Your task to perform on an android device: What's the news in Trinidad and Tobago? Image 0: 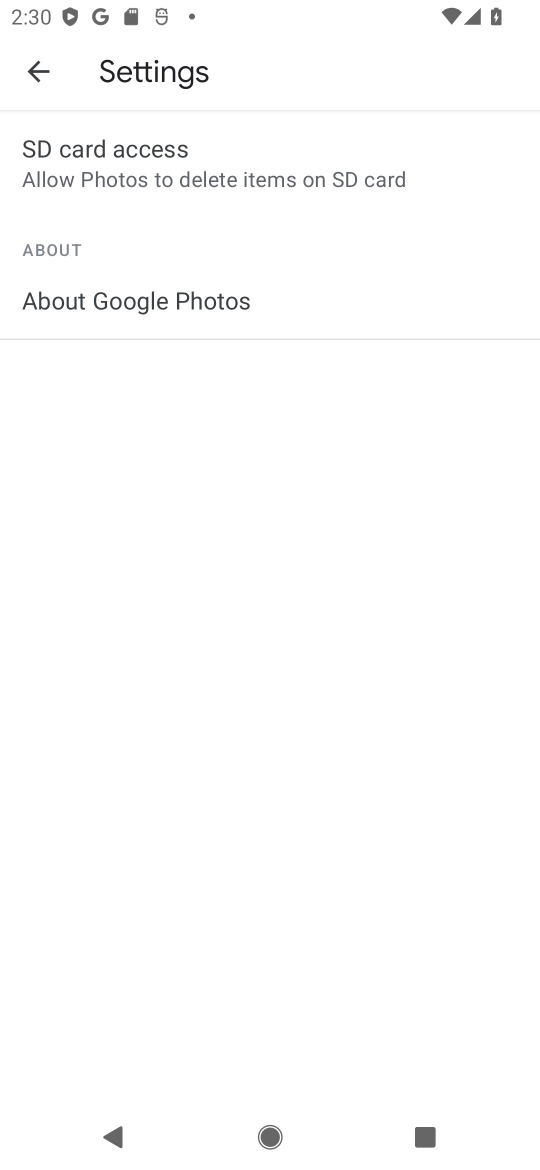
Step 0: press home button
Your task to perform on an android device: What's the news in Trinidad and Tobago? Image 1: 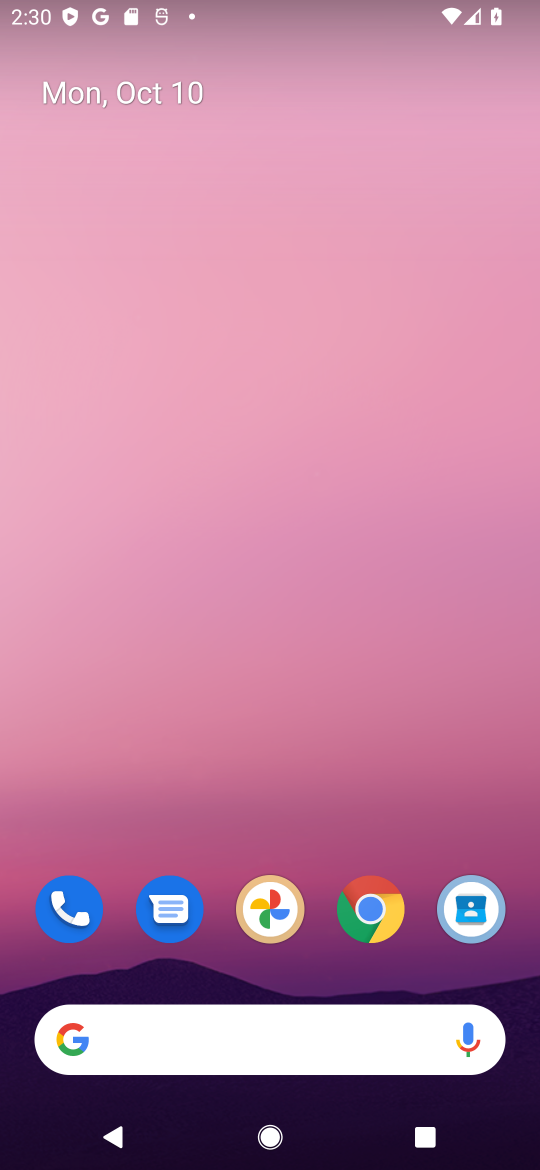
Step 1: click (367, 917)
Your task to perform on an android device: What's the news in Trinidad and Tobago? Image 2: 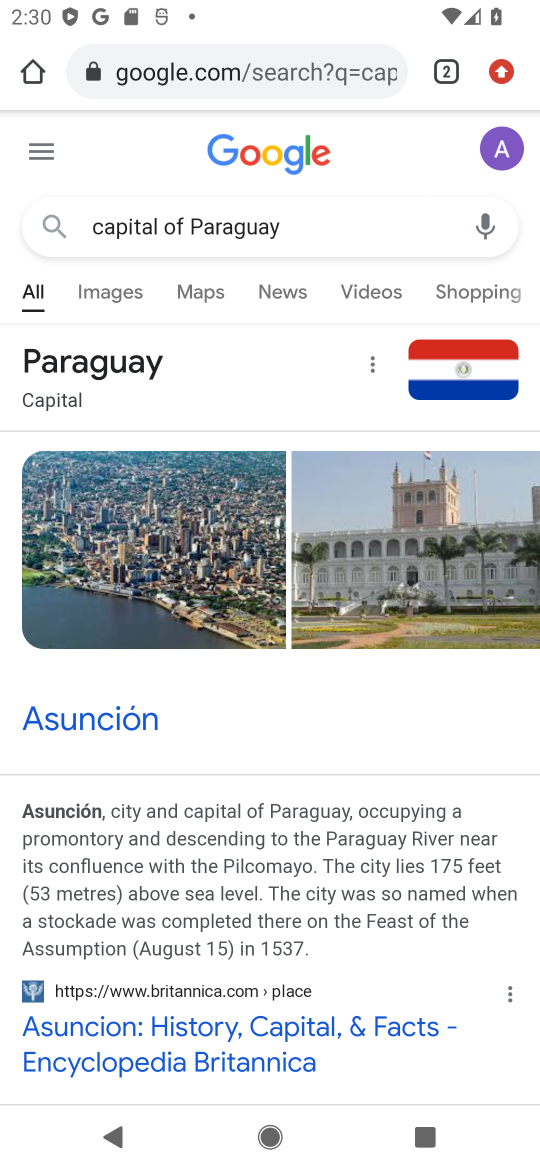
Step 2: click (295, 217)
Your task to perform on an android device: What's the news in Trinidad and Tobago? Image 3: 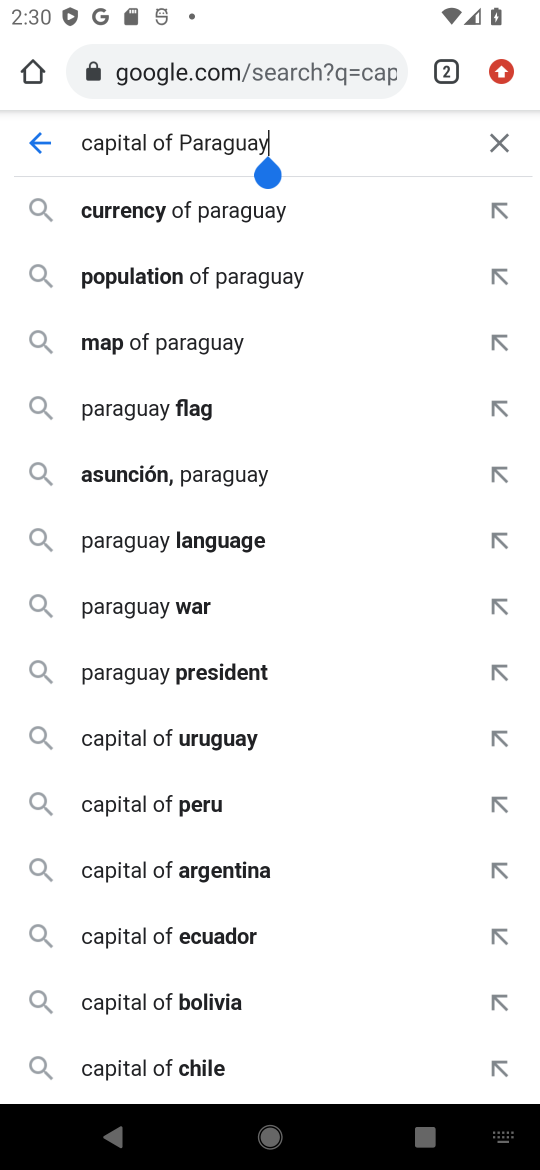
Step 3: click (495, 140)
Your task to perform on an android device: What's the news in Trinidad and Tobago? Image 4: 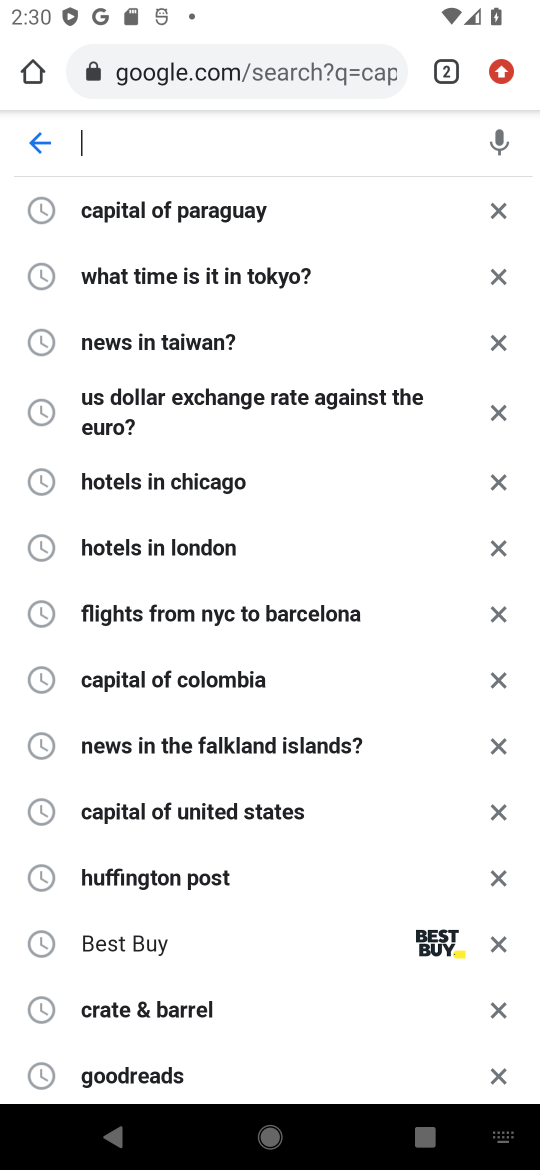
Step 4: type "What's the news in Trinidad and Tobago?"
Your task to perform on an android device: What's the news in Trinidad and Tobago? Image 5: 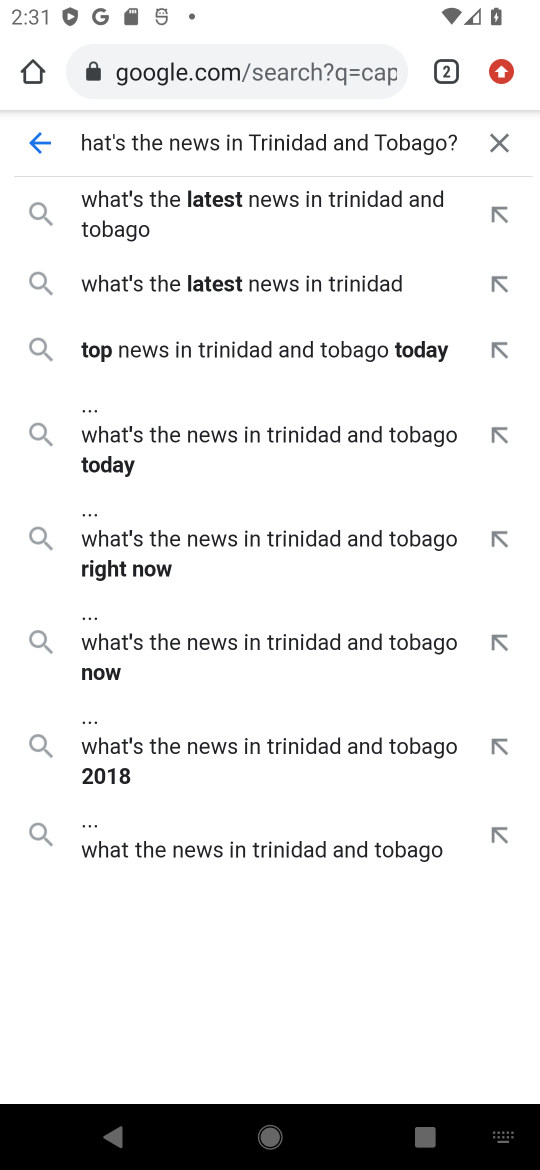
Step 5: click (202, 203)
Your task to perform on an android device: What's the news in Trinidad and Tobago? Image 6: 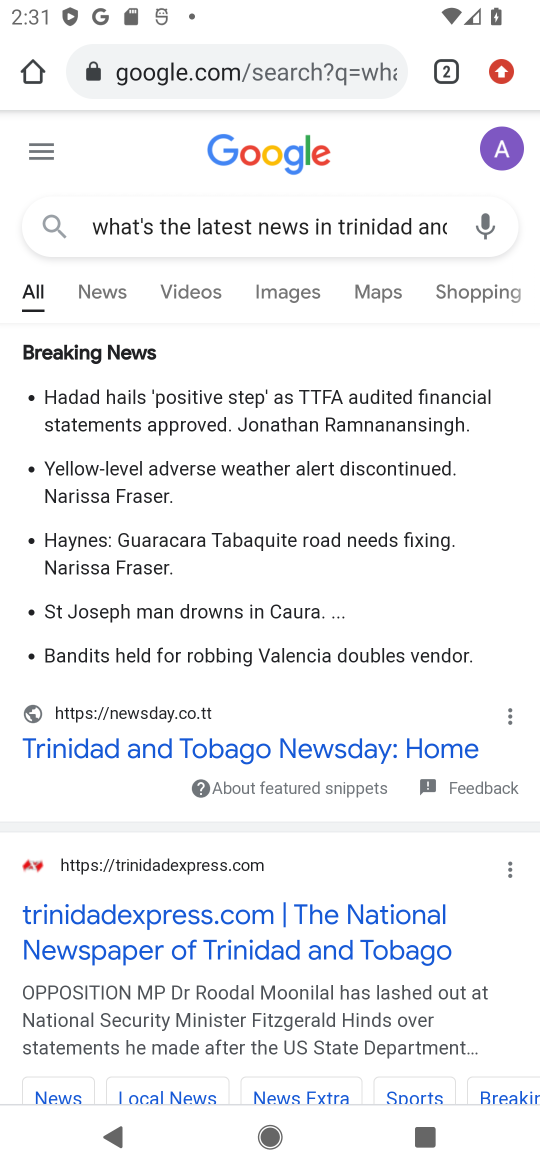
Step 6: click (142, 745)
Your task to perform on an android device: What's the news in Trinidad and Tobago? Image 7: 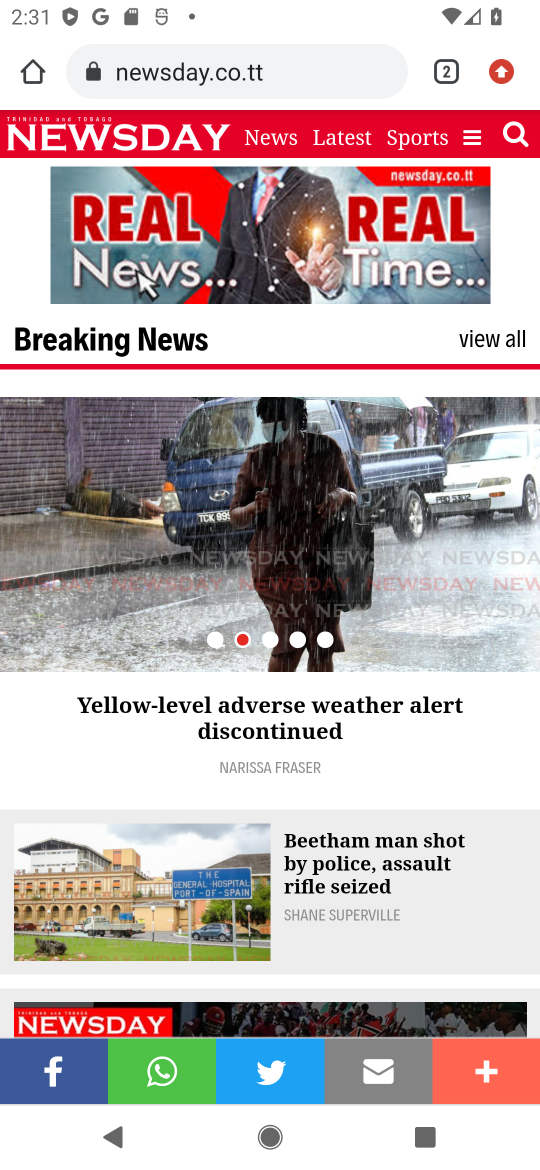
Step 7: drag from (278, 809) to (291, 345)
Your task to perform on an android device: What's the news in Trinidad and Tobago? Image 8: 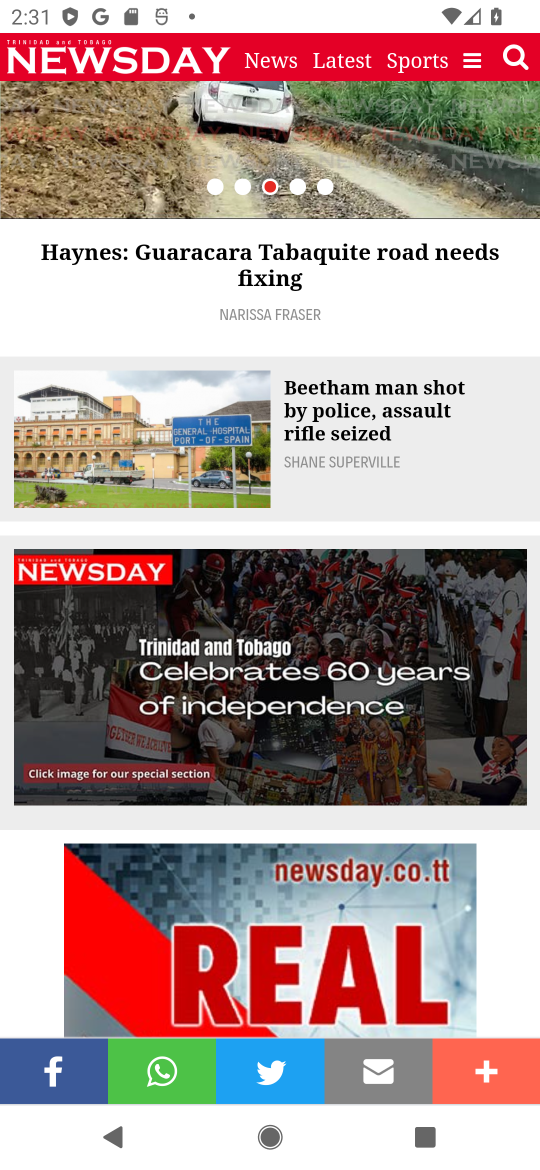
Step 8: drag from (297, 811) to (240, 125)
Your task to perform on an android device: What's the news in Trinidad and Tobago? Image 9: 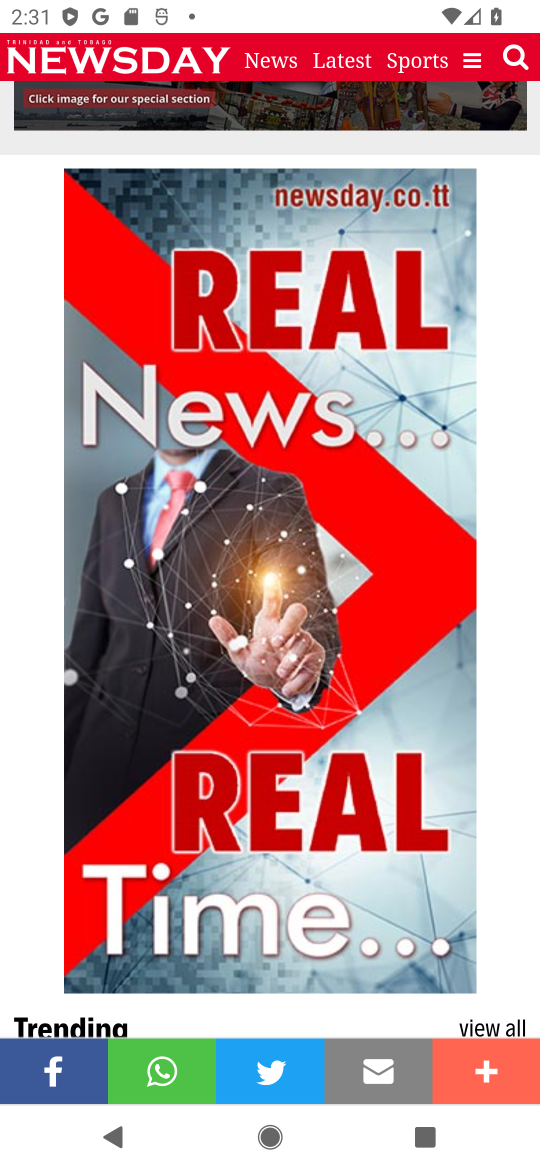
Step 9: drag from (300, 1009) to (257, 73)
Your task to perform on an android device: What's the news in Trinidad and Tobago? Image 10: 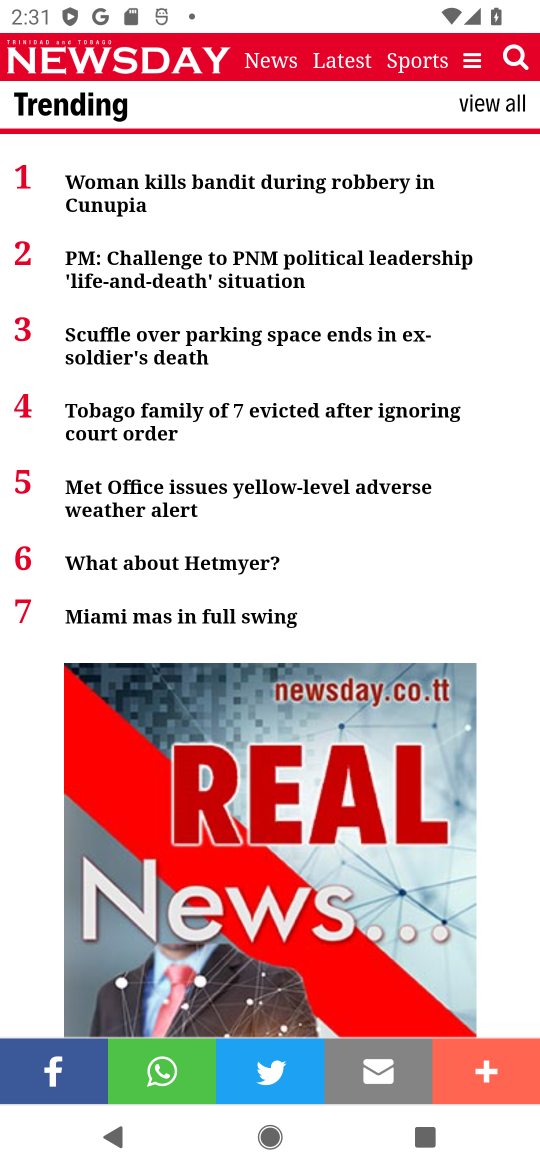
Step 10: drag from (429, 748) to (381, 232)
Your task to perform on an android device: What's the news in Trinidad and Tobago? Image 11: 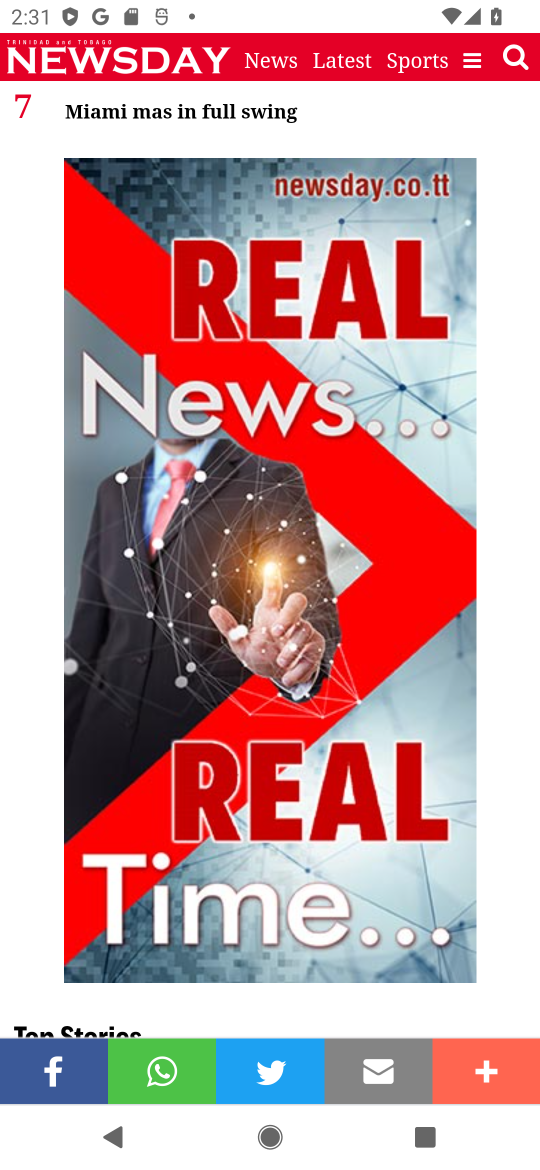
Step 11: drag from (428, 990) to (391, 240)
Your task to perform on an android device: What's the news in Trinidad and Tobago? Image 12: 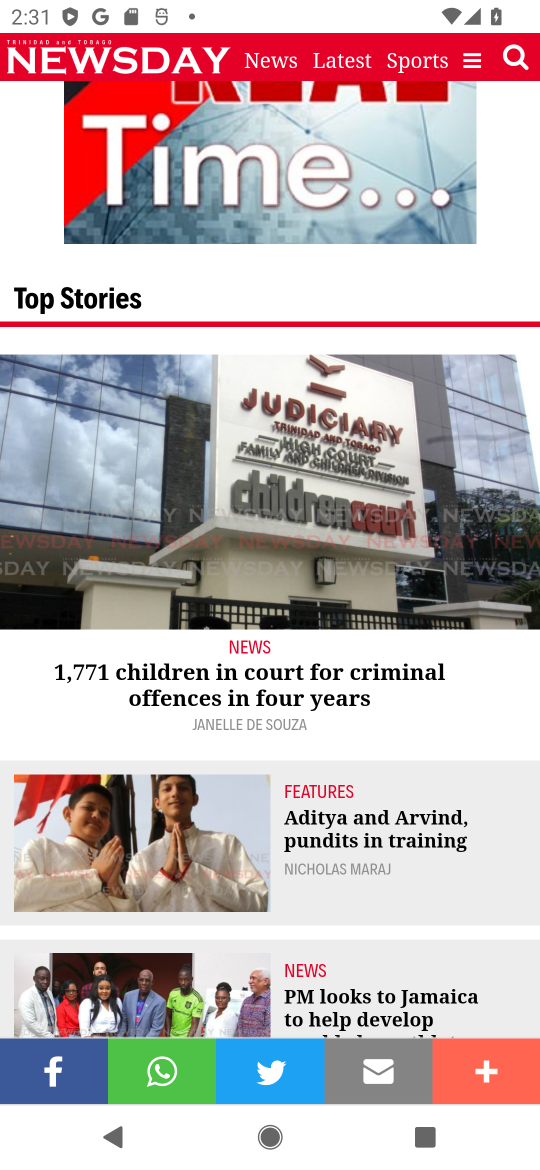
Step 12: drag from (420, 319) to (417, 859)
Your task to perform on an android device: What's the news in Trinidad and Tobago? Image 13: 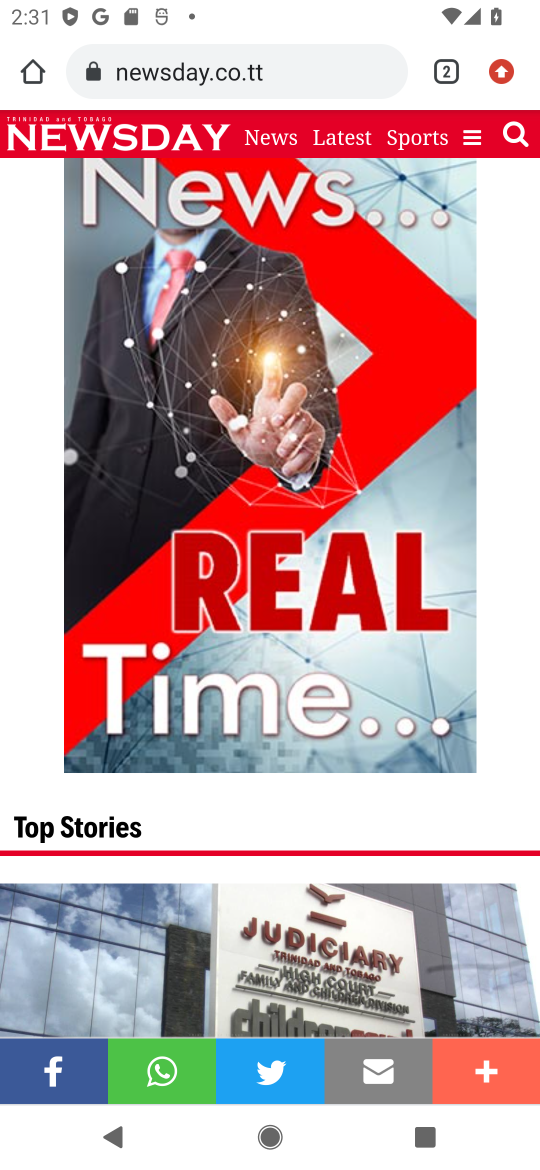
Step 13: drag from (331, 240) to (349, 997)
Your task to perform on an android device: What's the news in Trinidad and Tobago? Image 14: 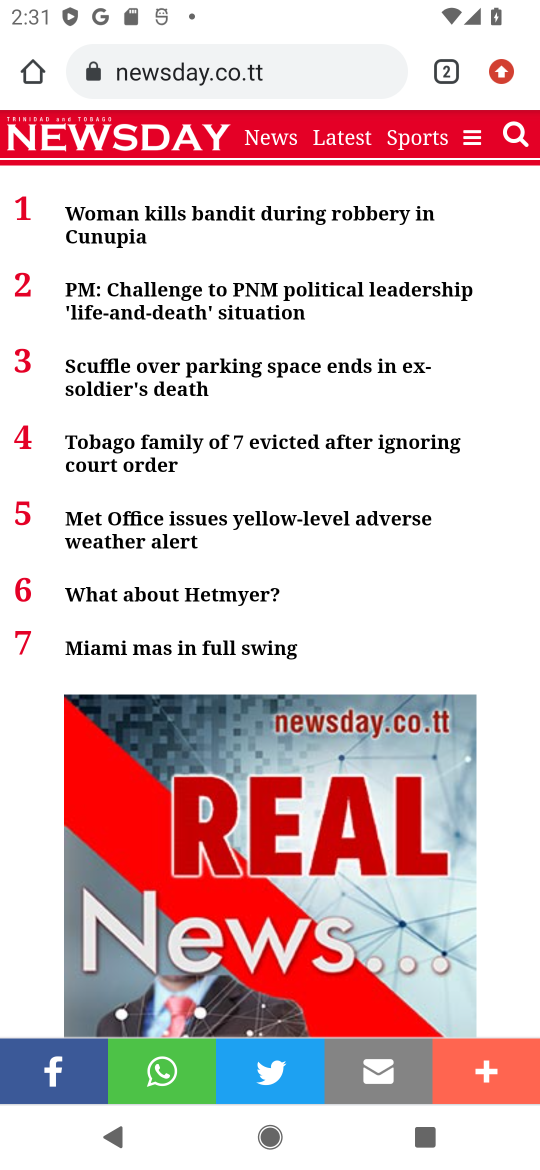
Step 14: drag from (374, 414) to (352, 965)
Your task to perform on an android device: What's the news in Trinidad and Tobago? Image 15: 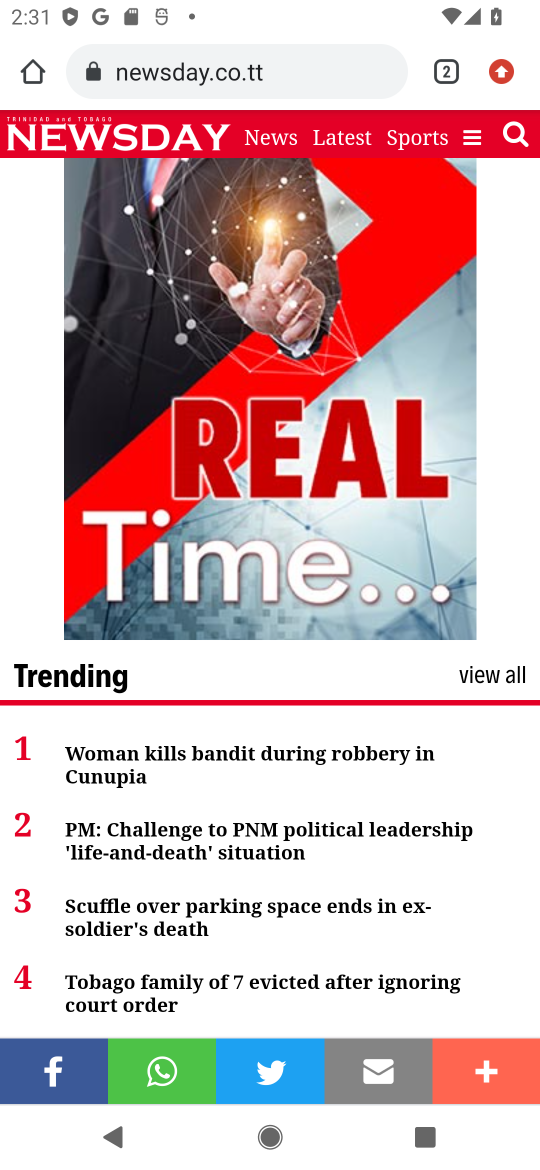
Step 15: drag from (364, 408) to (278, 882)
Your task to perform on an android device: What's the news in Trinidad and Tobago? Image 16: 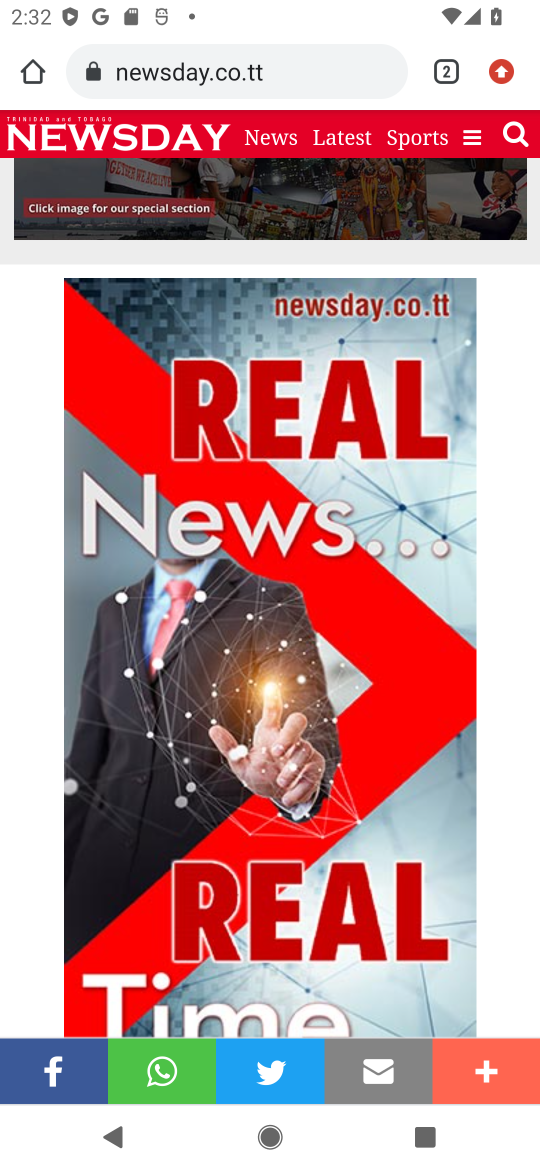
Step 16: drag from (293, 456) to (217, 995)
Your task to perform on an android device: What's the news in Trinidad and Tobago? Image 17: 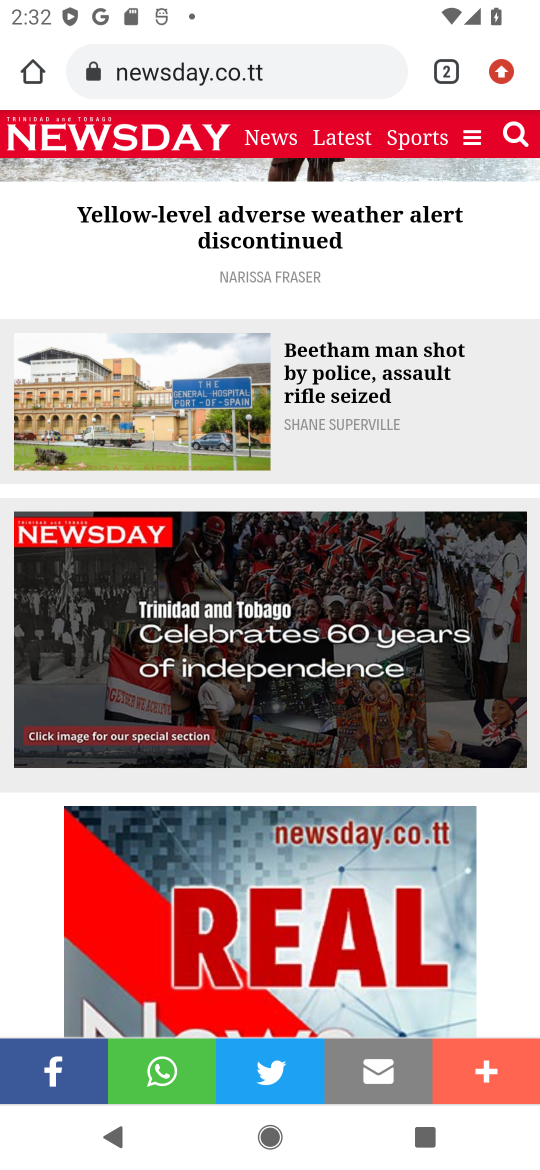
Step 17: drag from (284, 537) to (177, 1013)
Your task to perform on an android device: What's the news in Trinidad and Tobago? Image 18: 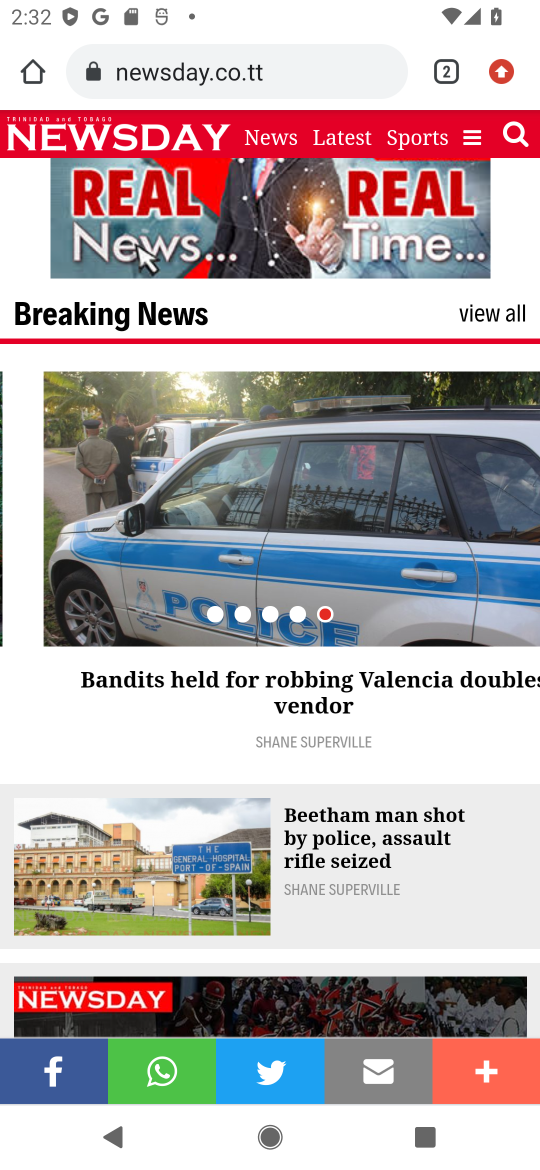
Step 18: click (227, 678)
Your task to perform on an android device: What's the news in Trinidad and Tobago? Image 19: 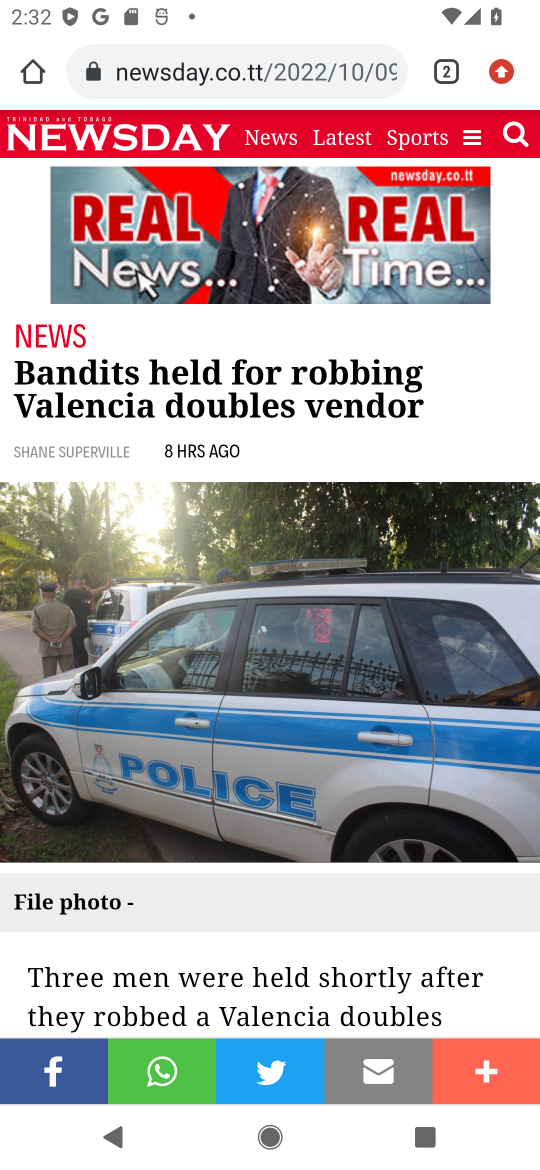
Step 19: task complete